Your task to perform on an android device: turn on notifications settings in the gmail app Image 0: 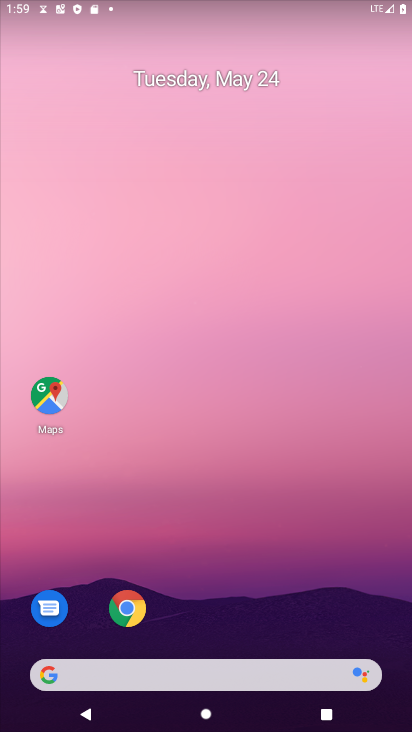
Step 0: drag from (246, 637) to (215, 222)
Your task to perform on an android device: turn on notifications settings in the gmail app Image 1: 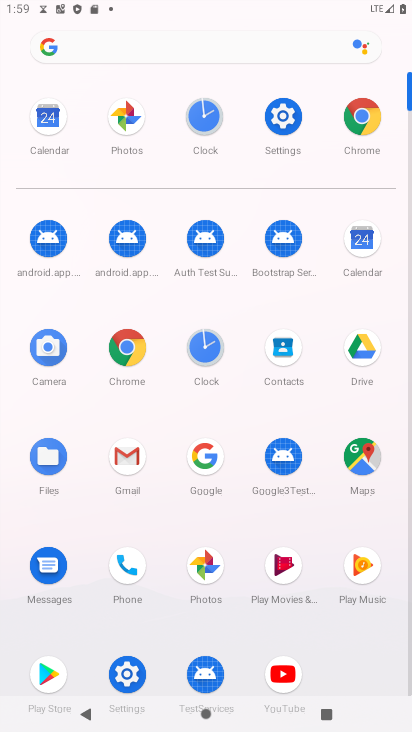
Step 1: click (139, 463)
Your task to perform on an android device: turn on notifications settings in the gmail app Image 2: 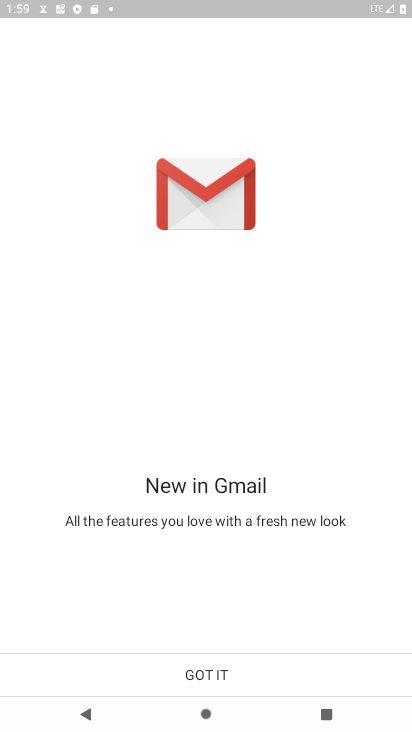
Step 2: click (209, 685)
Your task to perform on an android device: turn on notifications settings in the gmail app Image 3: 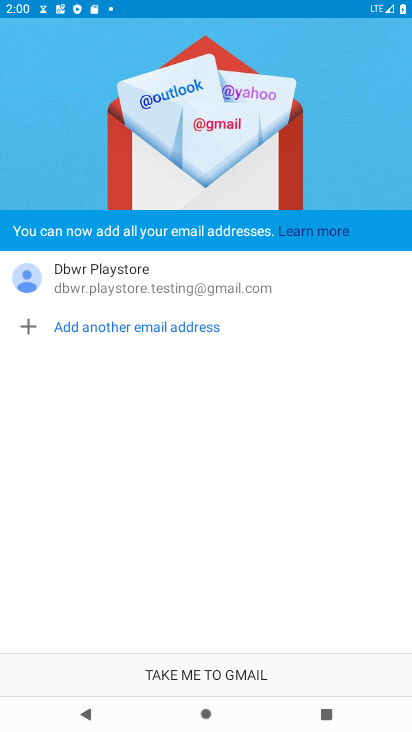
Step 3: click (209, 685)
Your task to perform on an android device: turn on notifications settings in the gmail app Image 4: 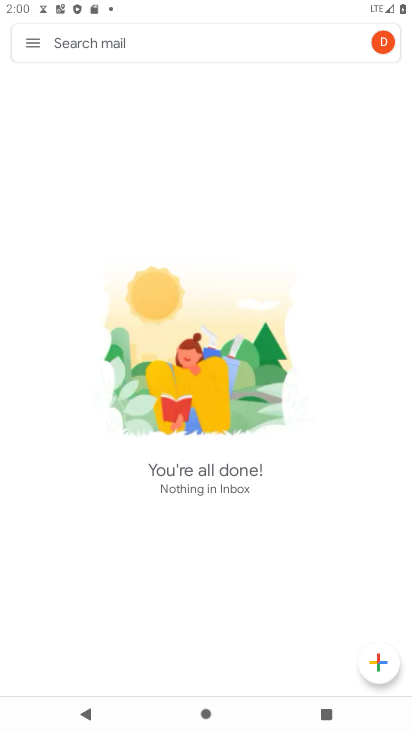
Step 4: click (32, 49)
Your task to perform on an android device: turn on notifications settings in the gmail app Image 5: 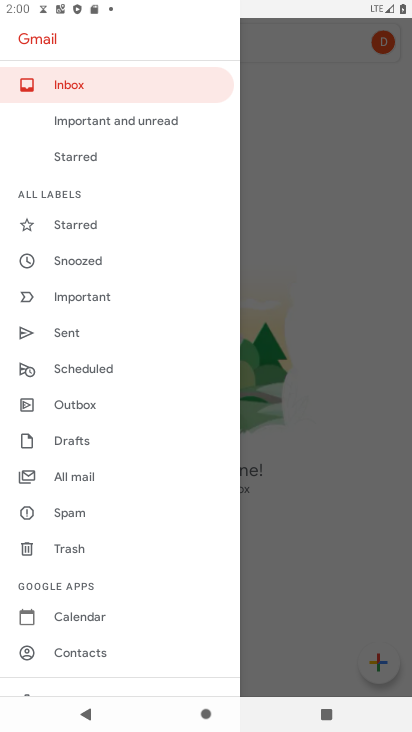
Step 5: drag from (125, 672) to (118, 201)
Your task to perform on an android device: turn on notifications settings in the gmail app Image 6: 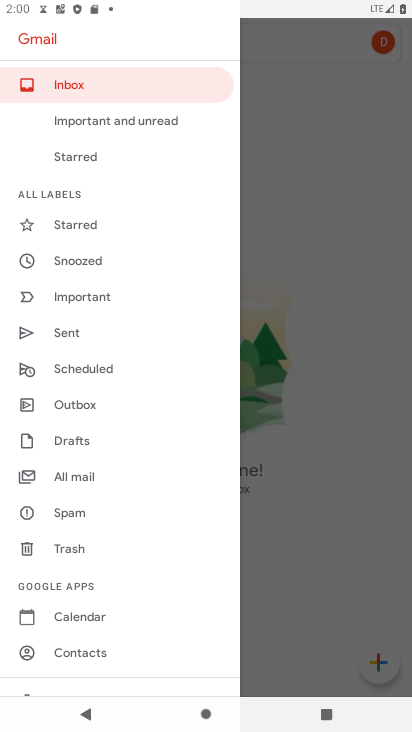
Step 6: drag from (82, 639) to (51, 309)
Your task to perform on an android device: turn on notifications settings in the gmail app Image 7: 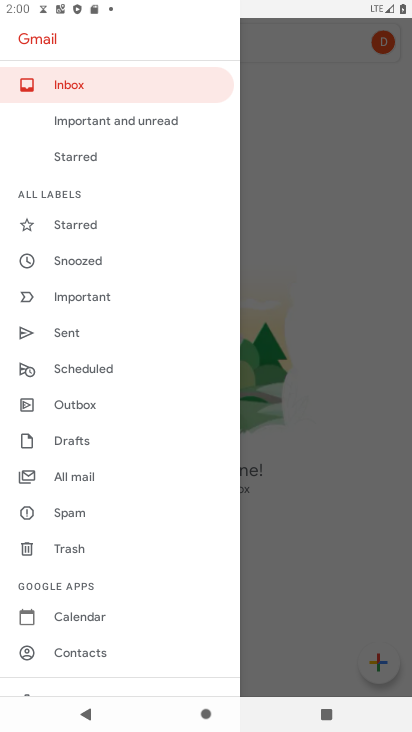
Step 7: drag from (86, 629) to (110, 225)
Your task to perform on an android device: turn on notifications settings in the gmail app Image 8: 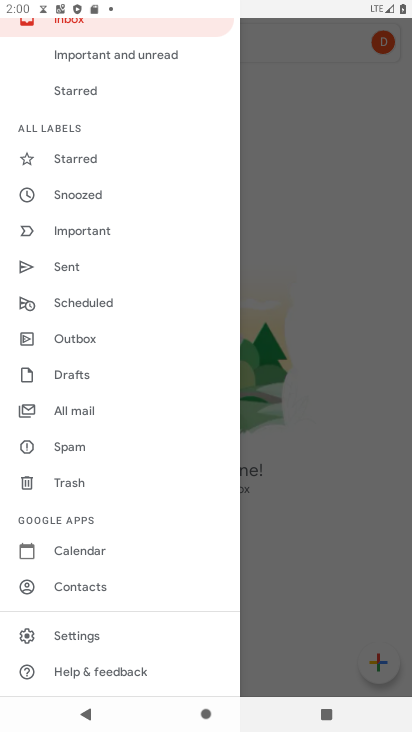
Step 8: click (94, 639)
Your task to perform on an android device: turn on notifications settings in the gmail app Image 9: 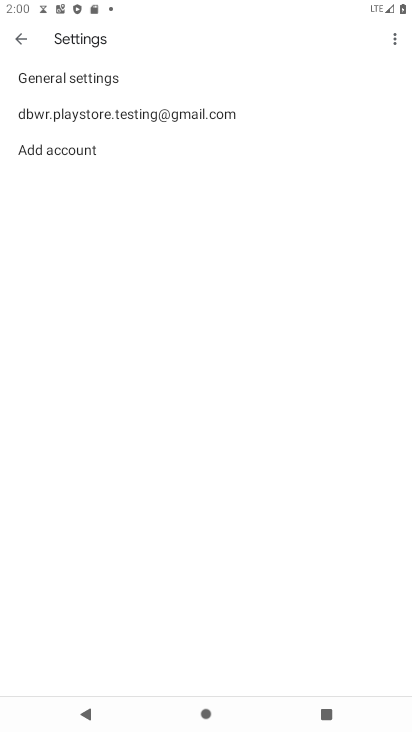
Step 9: click (150, 118)
Your task to perform on an android device: turn on notifications settings in the gmail app Image 10: 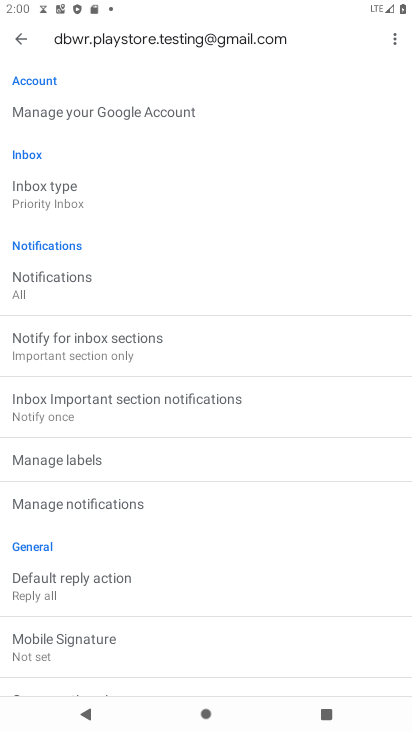
Step 10: click (140, 508)
Your task to perform on an android device: turn on notifications settings in the gmail app Image 11: 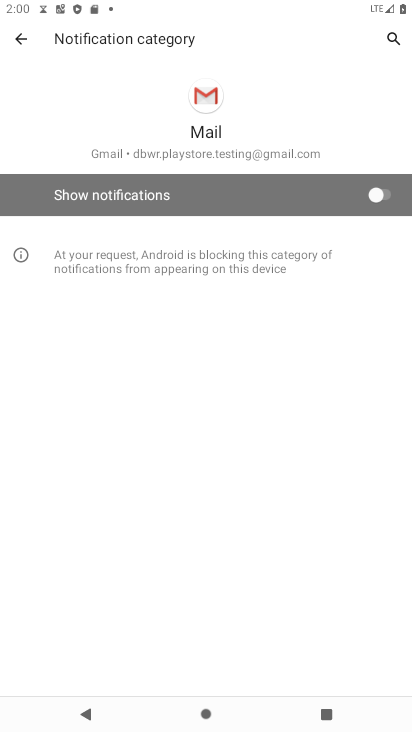
Step 11: click (363, 213)
Your task to perform on an android device: turn on notifications settings in the gmail app Image 12: 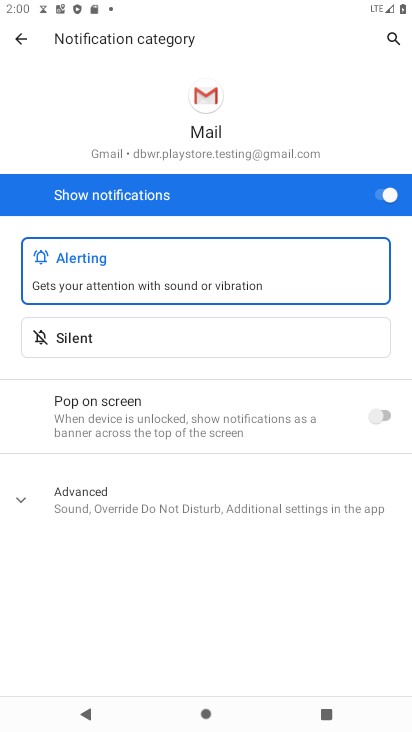
Step 12: task complete